Your task to perform on an android device: visit the assistant section in the google photos Image 0: 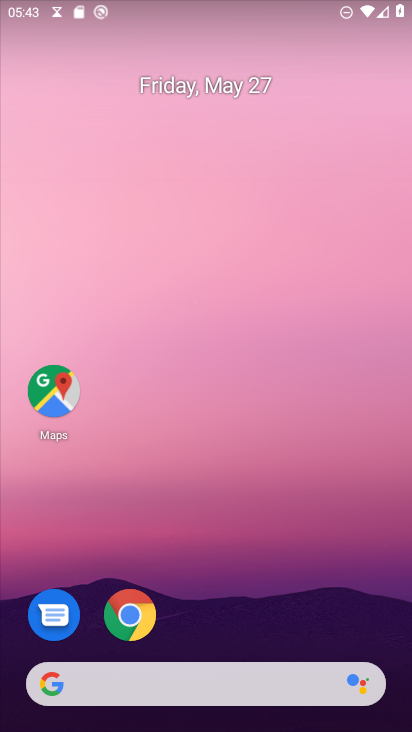
Step 0: drag from (318, 588) to (227, 129)
Your task to perform on an android device: visit the assistant section in the google photos Image 1: 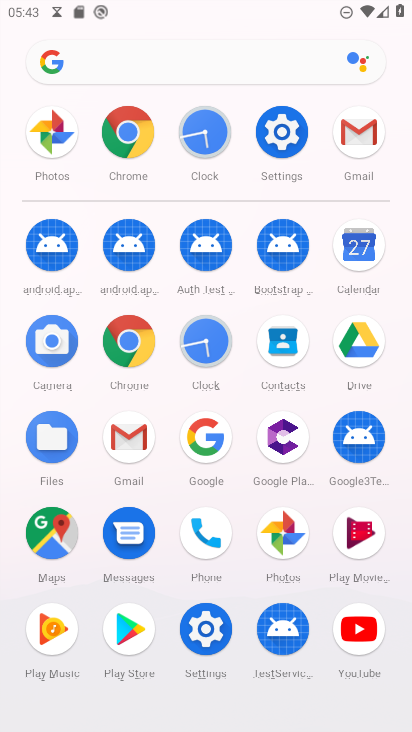
Step 1: click (289, 524)
Your task to perform on an android device: visit the assistant section in the google photos Image 2: 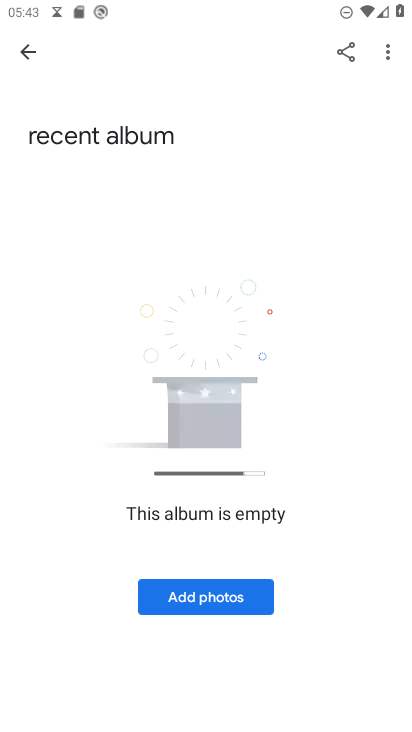
Step 2: click (16, 37)
Your task to perform on an android device: visit the assistant section in the google photos Image 3: 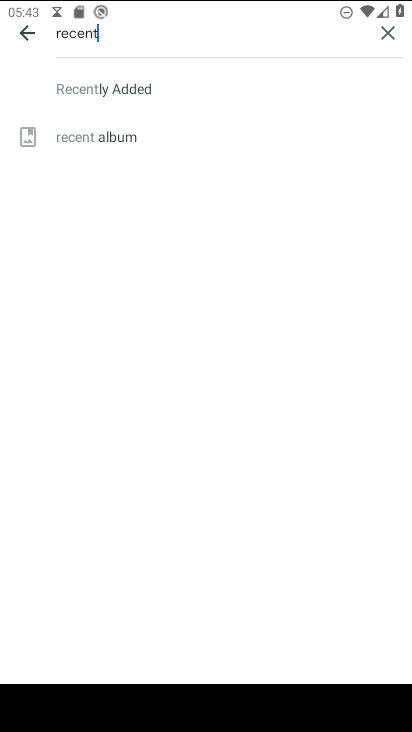
Step 3: click (24, 31)
Your task to perform on an android device: visit the assistant section in the google photos Image 4: 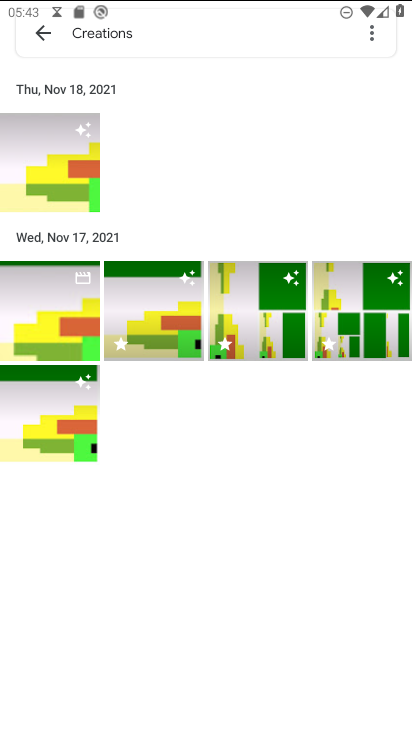
Step 4: click (39, 39)
Your task to perform on an android device: visit the assistant section in the google photos Image 5: 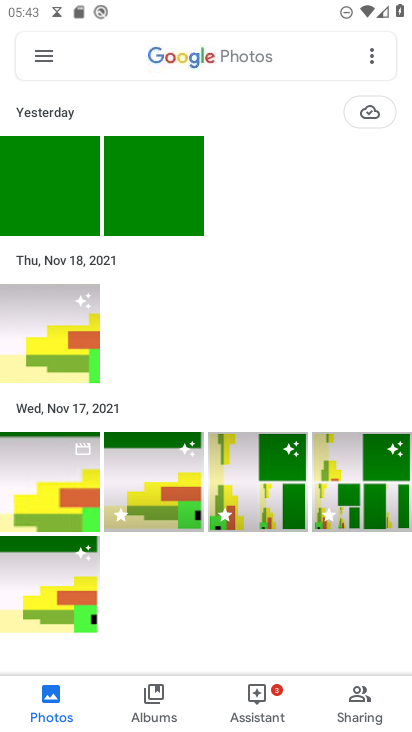
Step 5: click (278, 700)
Your task to perform on an android device: visit the assistant section in the google photos Image 6: 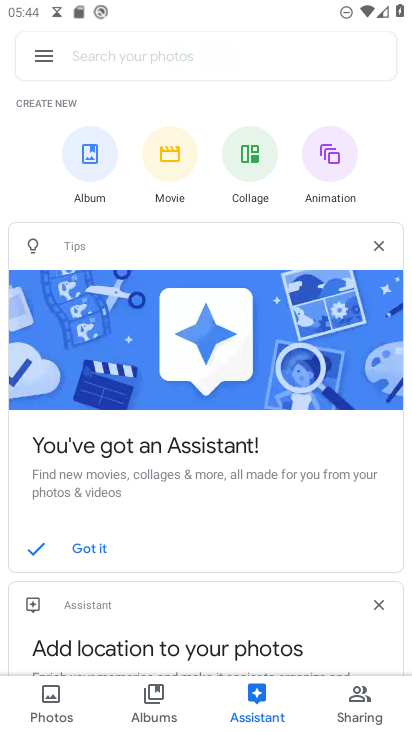
Step 6: task complete